Your task to perform on an android device: Open calendar and show me the second week of next month Image 0: 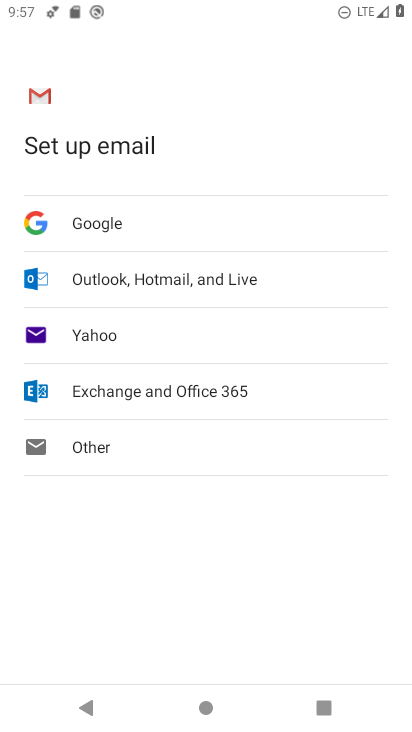
Step 0: press home button
Your task to perform on an android device: Open calendar and show me the second week of next month Image 1: 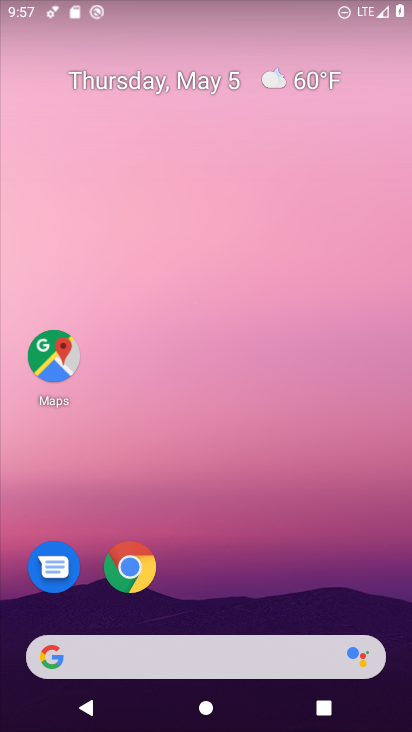
Step 1: drag from (215, 727) to (220, 226)
Your task to perform on an android device: Open calendar and show me the second week of next month Image 2: 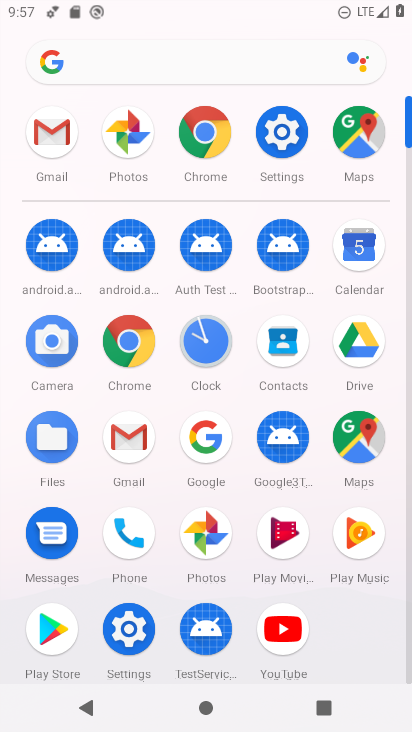
Step 2: click (356, 256)
Your task to perform on an android device: Open calendar and show me the second week of next month Image 3: 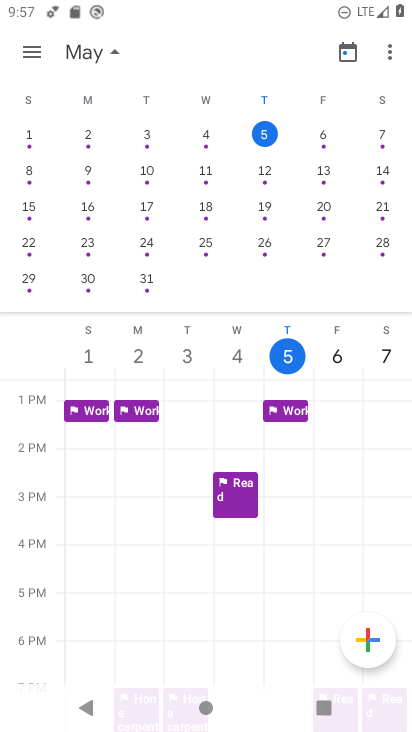
Step 3: click (92, 56)
Your task to perform on an android device: Open calendar and show me the second week of next month Image 4: 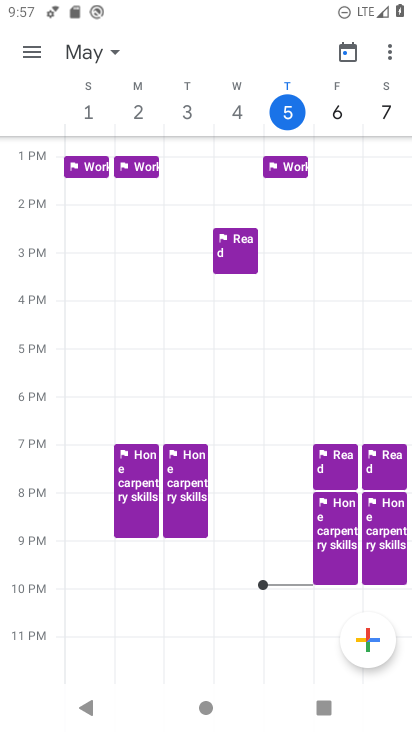
Step 4: click (100, 53)
Your task to perform on an android device: Open calendar and show me the second week of next month Image 5: 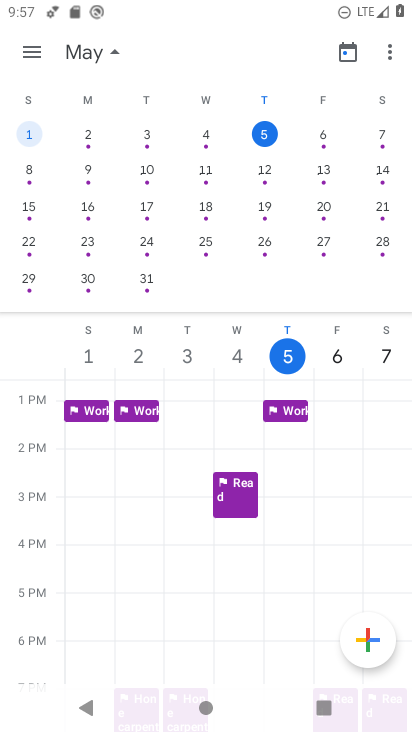
Step 5: drag from (366, 228) to (8, 210)
Your task to perform on an android device: Open calendar and show me the second week of next month Image 6: 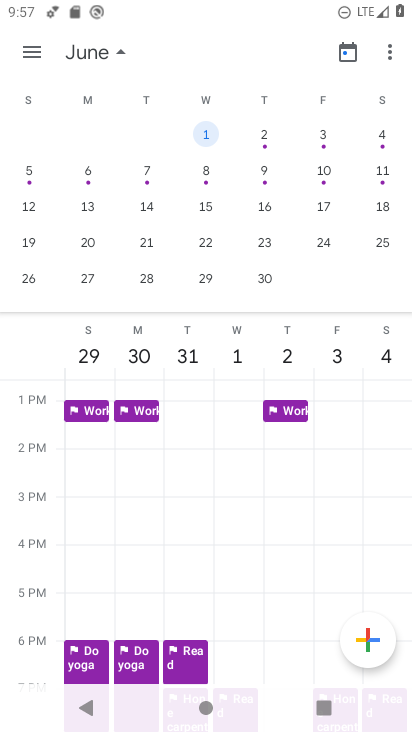
Step 6: click (88, 202)
Your task to perform on an android device: Open calendar and show me the second week of next month Image 7: 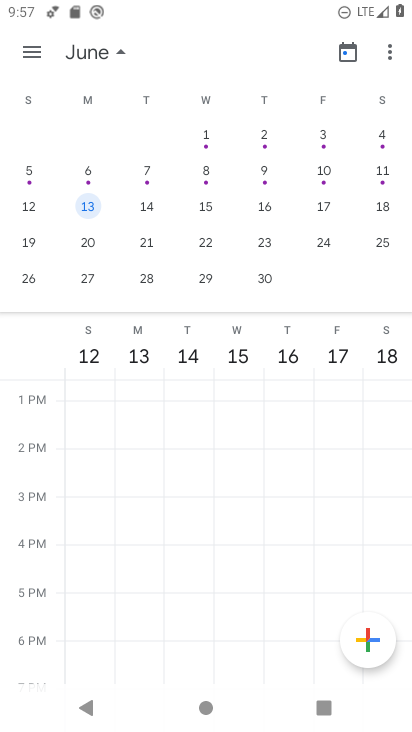
Step 7: task complete